Your task to perform on an android device: Search for Italian restaurants on Maps Image 0: 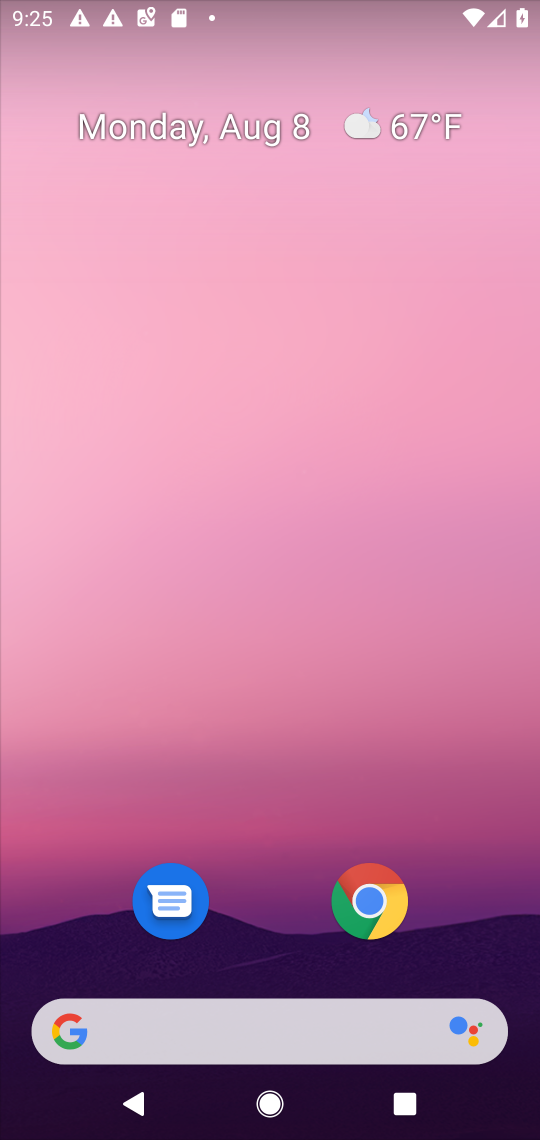
Step 0: drag from (267, 634) to (268, 22)
Your task to perform on an android device: Search for Italian restaurants on Maps Image 1: 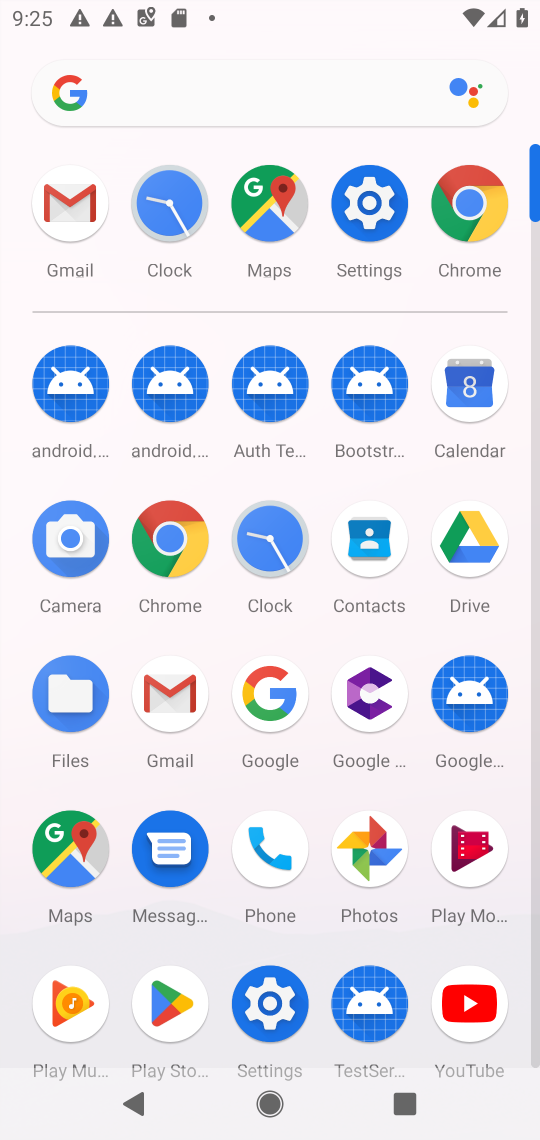
Step 1: click (267, 425)
Your task to perform on an android device: Search for Italian restaurants on Maps Image 2: 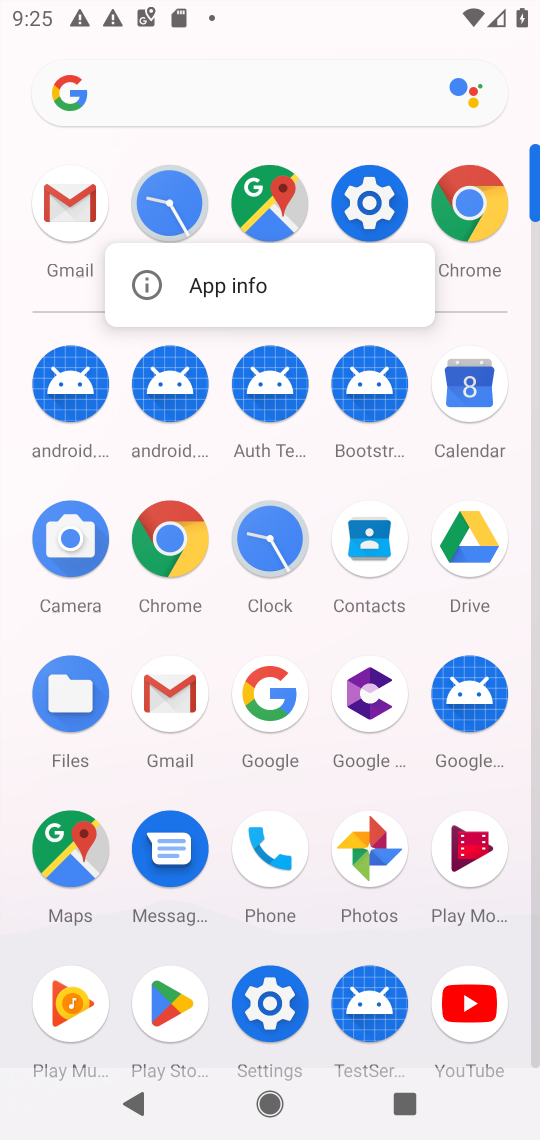
Step 2: click (280, 201)
Your task to perform on an android device: Search for Italian restaurants on Maps Image 3: 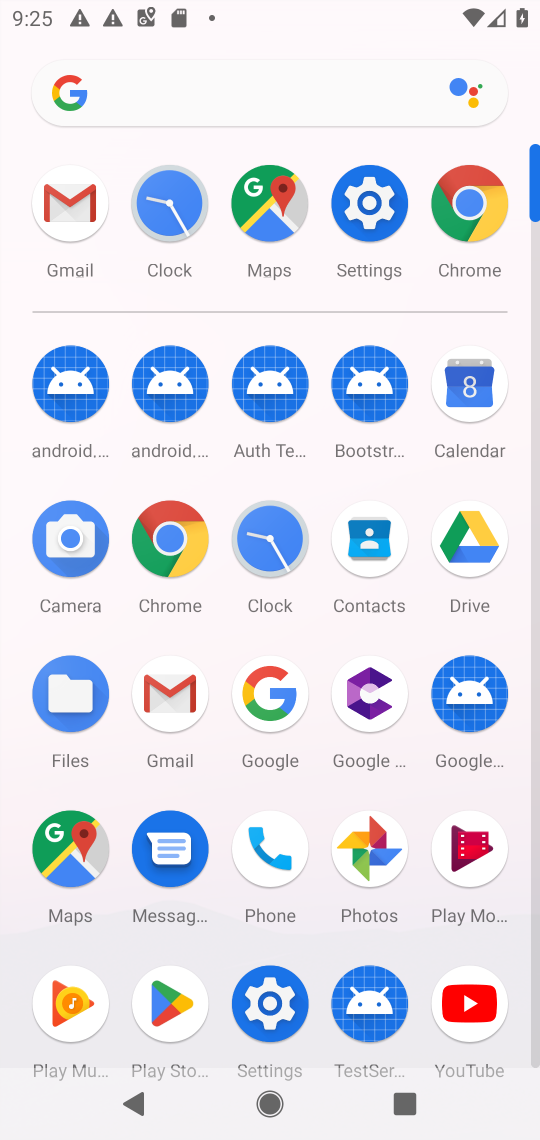
Step 3: click (273, 212)
Your task to perform on an android device: Search for Italian restaurants on Maps Image 4: 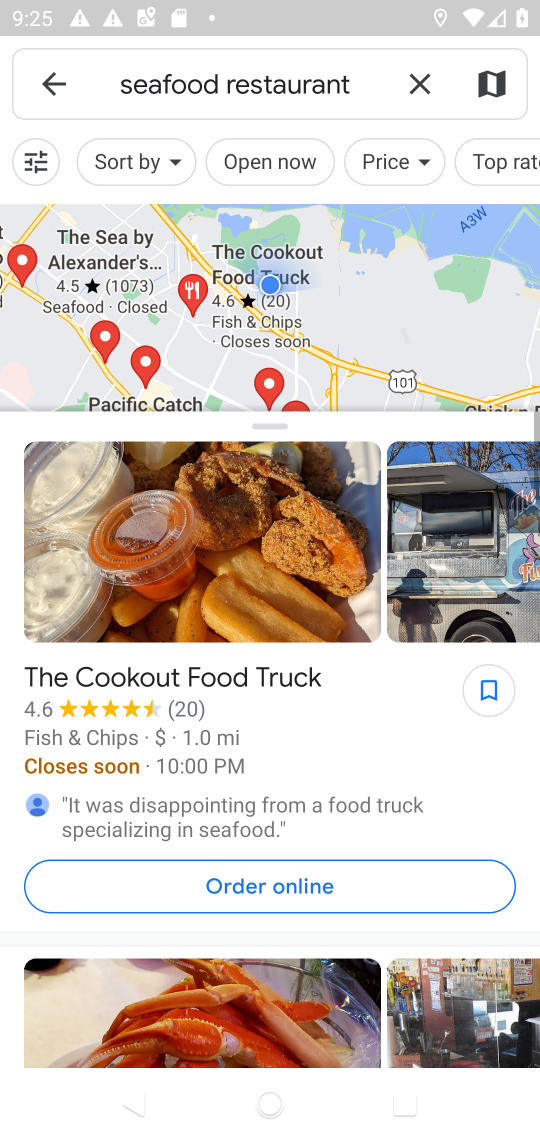
Step 4: click (415, 87)
Your task to perform on an android device: Search for Italian restaurants on Maps Image 5: 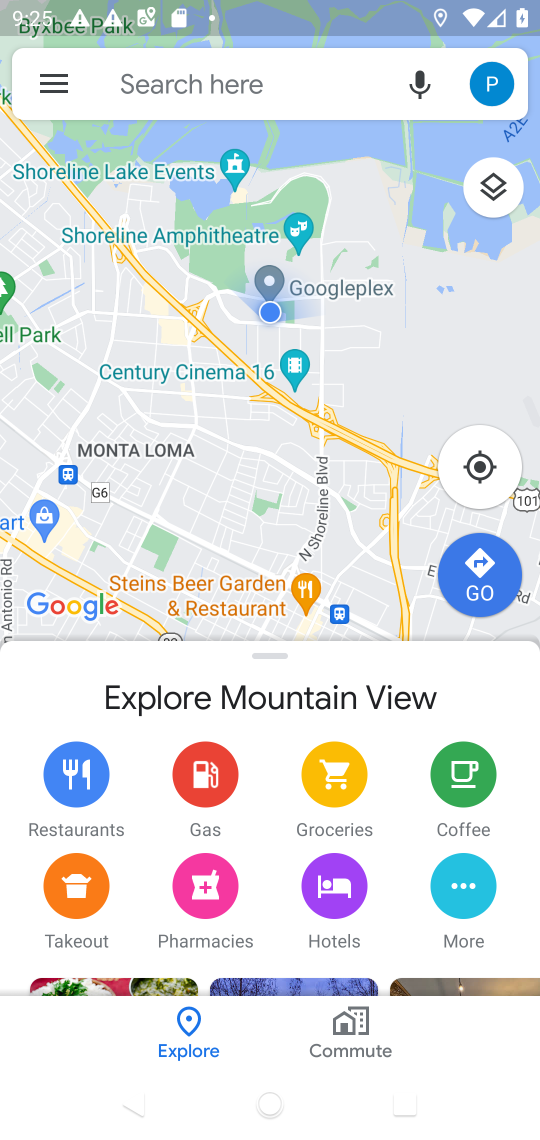
Step 5: click (226, 87)
Your task to perform on an android device: Search for Italian restaurants on Maps Image 6: 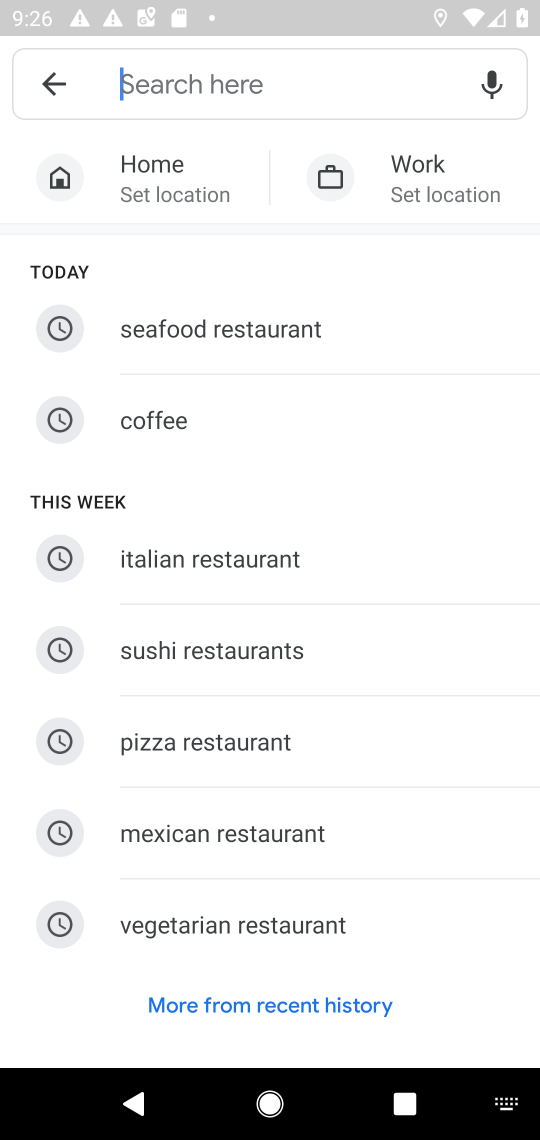
Step 6: type "Italian restaurants"
Your task to perform on an android device: Search for Italian restaurants on Maps Image 7: 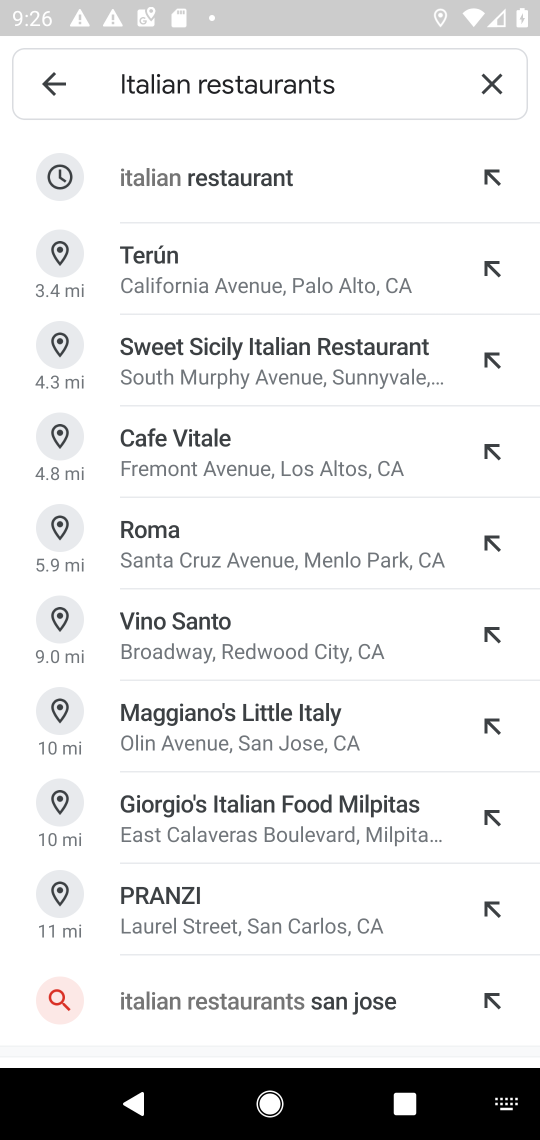
Step 7: click (211, 187)
Your task to perform on an android device: Search for Italian restaurants on Maps Image 8: 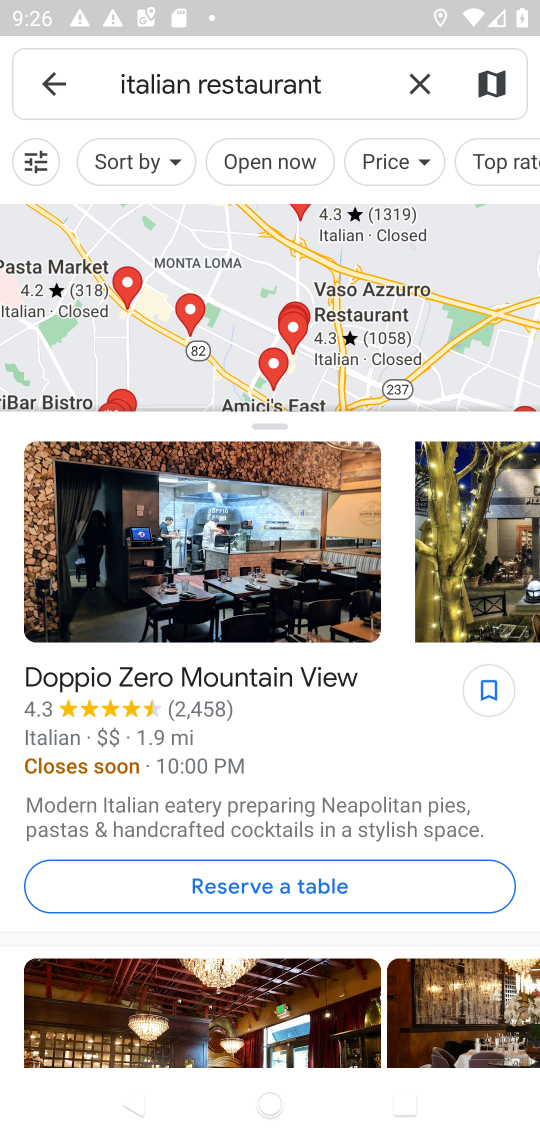
Step 8: task complete